Your task to perform on an android device: uninstall "Viber Messenger" Image 0: 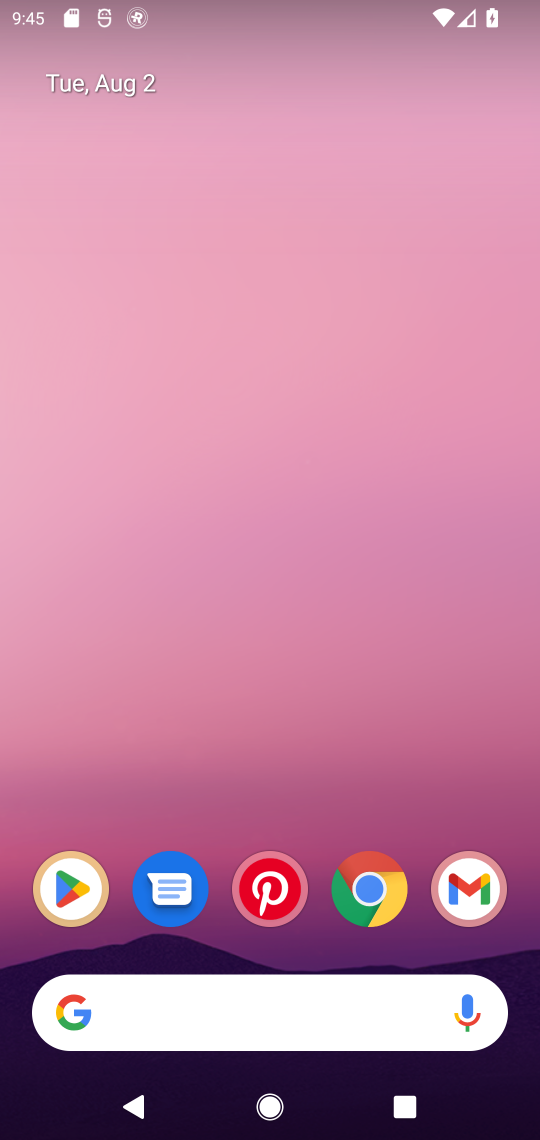
Step 0: click (73, 890)
Your task to perform on an android device: uninstall "Viber Messenger" Image 1: 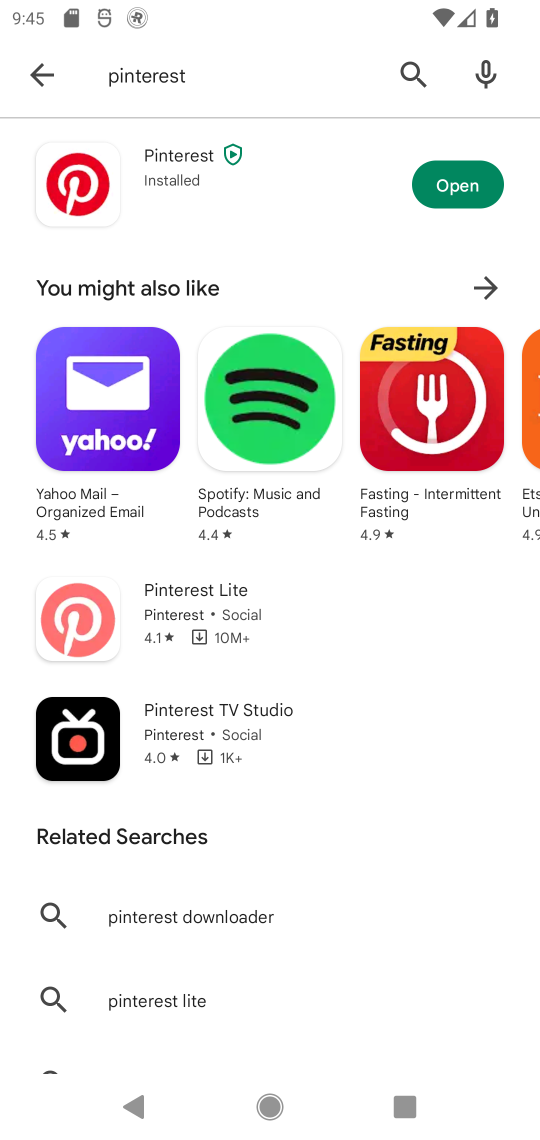
Step 1: click (417, 66)
Your task to perform on an android device: uninstall "Viber Messenger" Image 2: 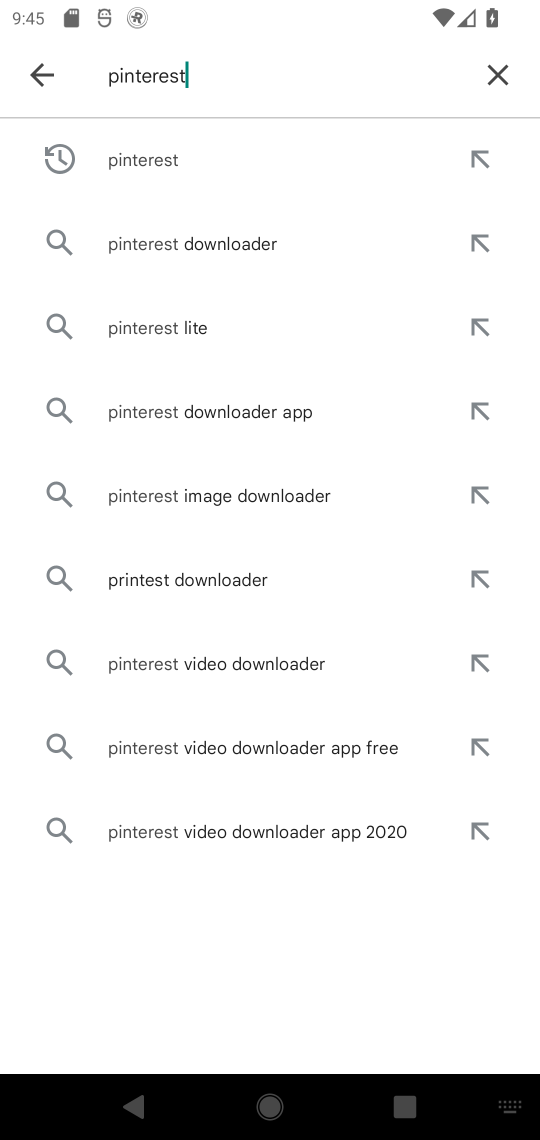
Step 2: type "Viber Messenger"
Your task to perform on an android device: uninstall "Viber Messenger" Image 3: 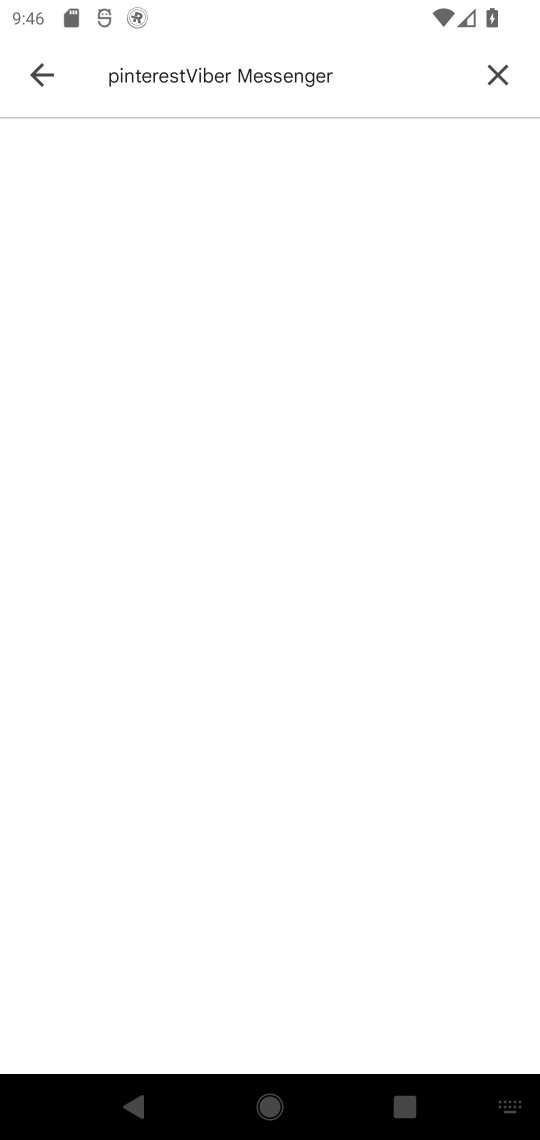
Step 3: click (506, 70)
Your task to perform on an android device: uninstall "Viber Messenger" Image 4: 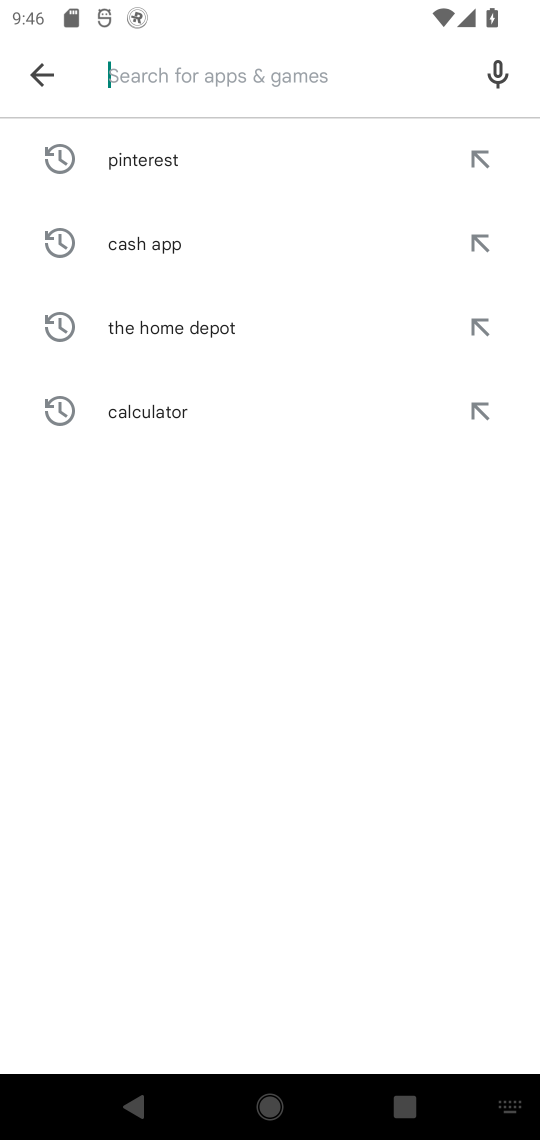
Step 4: type "Viber Messenger"
Your task to perform on an android device: uninstall "Viber Messenger" Image 5: 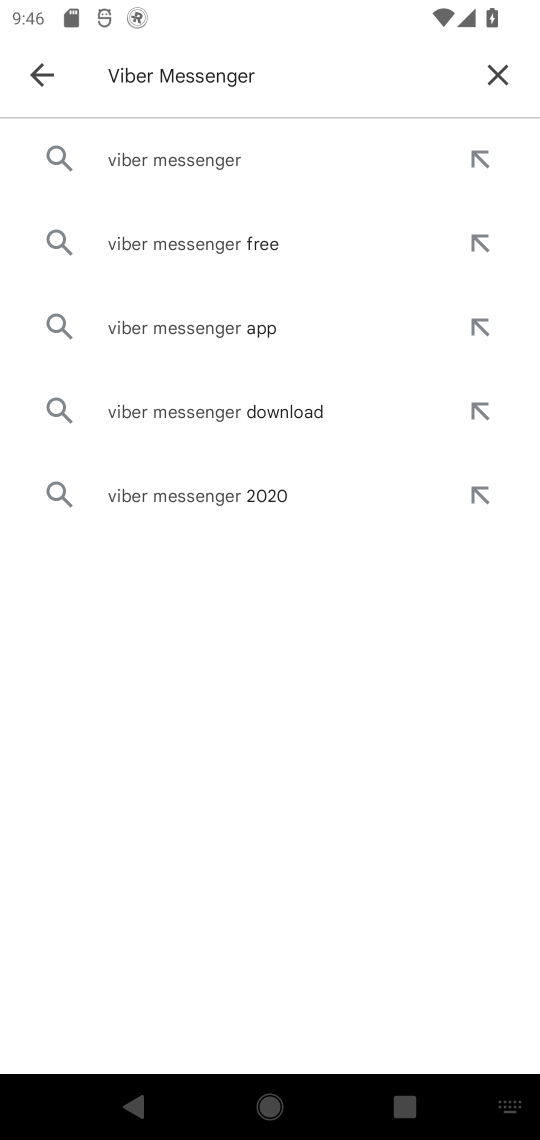
Step 5: click (215, 161)
Your task to perform on an android device: uninstall "Viber Messenger" Image 6: 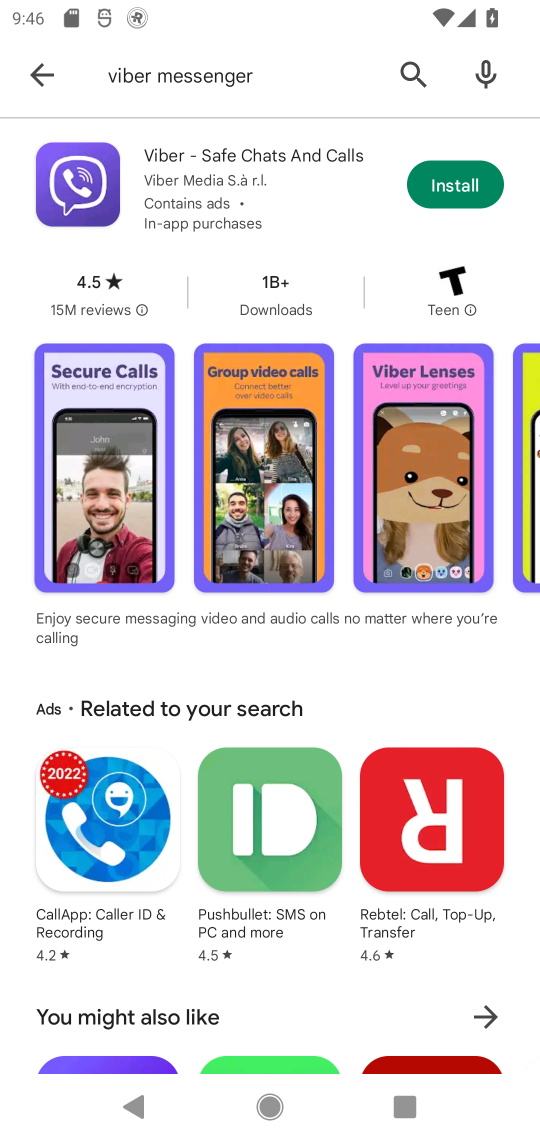
Step 6: task complete